Your task to perform on an android device: Open Youtube and go to "Your channel" Image 0: 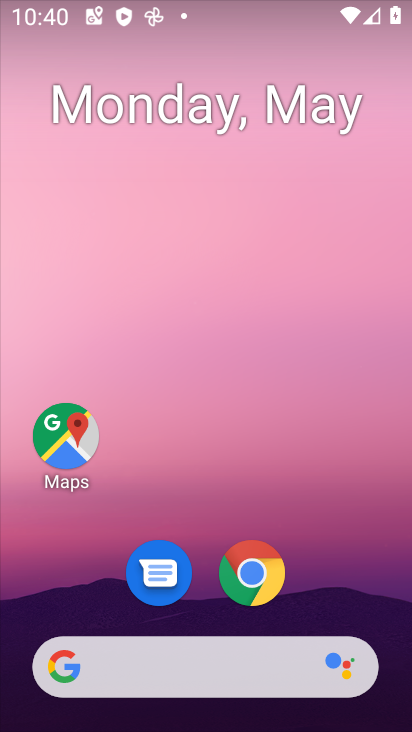
Step 0: drag from (344, 589) to (185, 70)
Your task to perform on an android device: Open Youtube and go to "Your channel" Image 1: 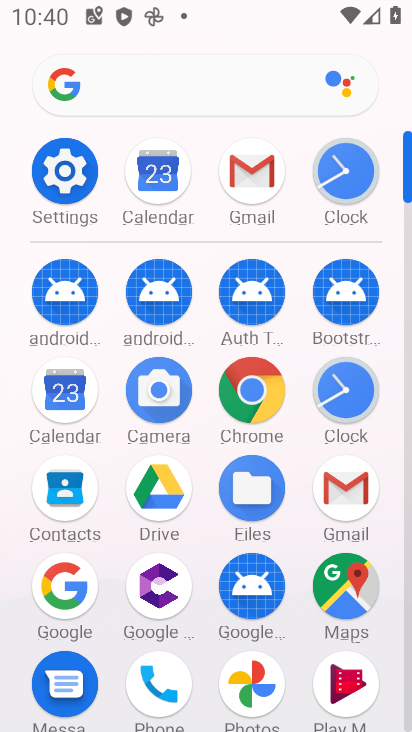
Step 1: click (408, 716)
Your task to perform on an android device: Open Youtube and go to "Your channel" Image 2: 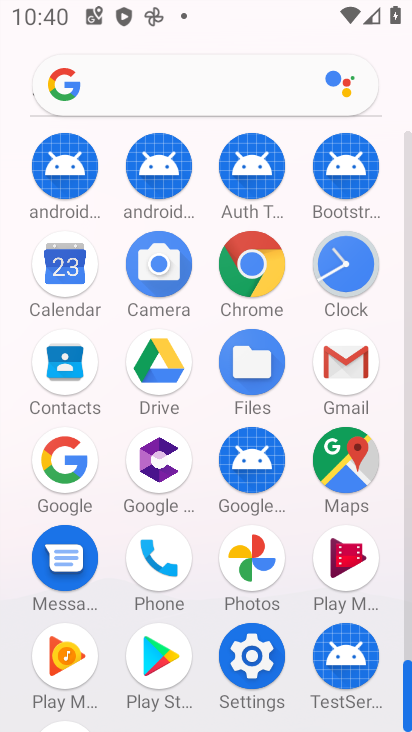
Step 2: drag from (406, 669) to (150, 700)
Your task to perform on an android device: Open Youtube and go to "Your channel" Image 3: 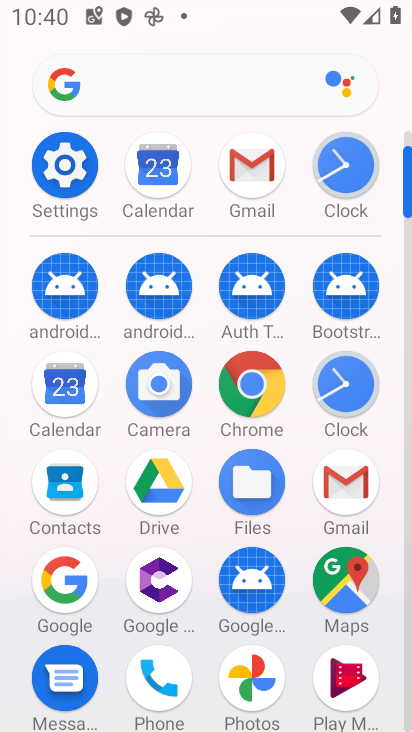
Step 3: click (64, 704)
Your task to perform on an android device: Open Youtube and go to "Your channel" Image 4: 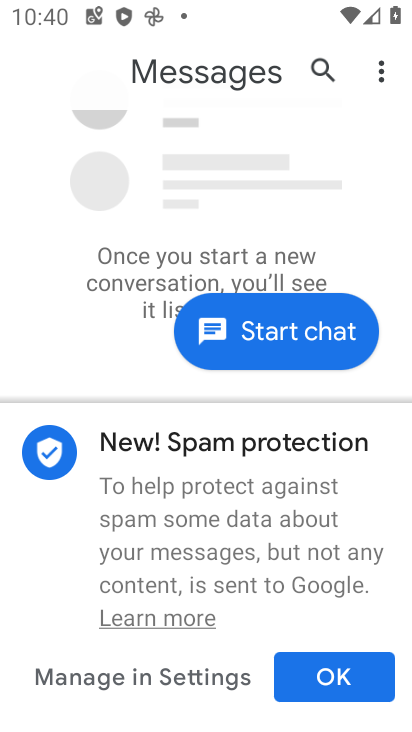
Step 4: press home button
Your task to perform on an android device: Open Youtube and go to "Your channel" Image 5: 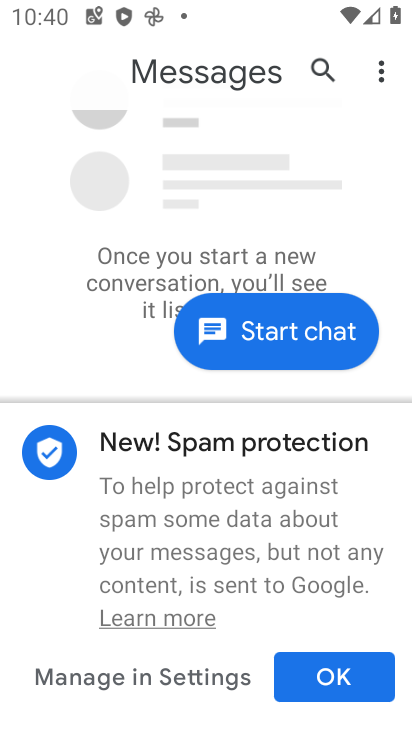
Step 5: press home button
Your task to perform on an android device: Open Youtube and go to "Your channel" Image 6: 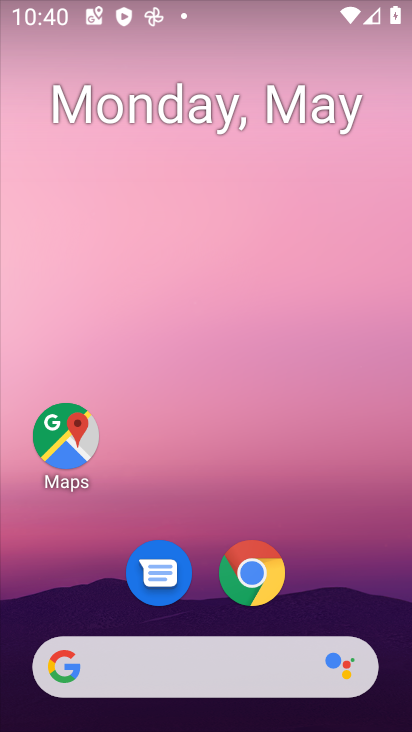
Step 6: drag from (356, 615) to (297, 56)
Your task to perform on an android device: Open Youtube and go to "Your channel" Image 7: 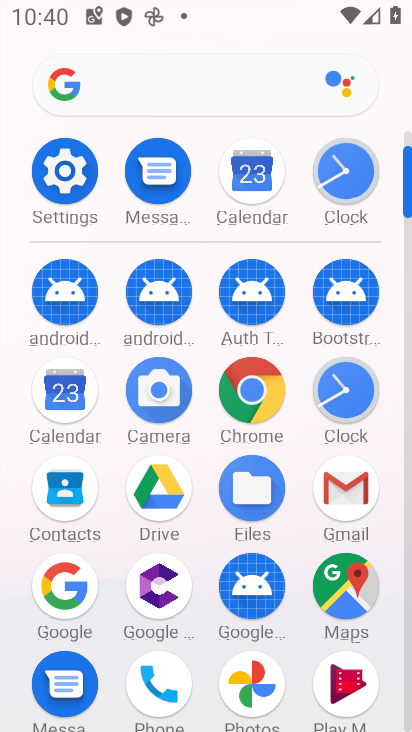
Step 7: click (411, 718)
Your task to perform on an android device: Open Youtube and go to "Your channel" Image 8: 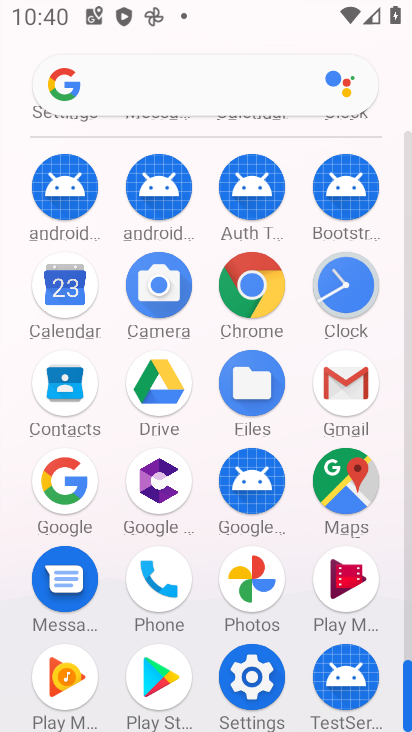
Step 8: drag from (407, 700) to (398, 582)
Your task to perform on an android device: Open Youtube and go to "Your channel" Image 9: 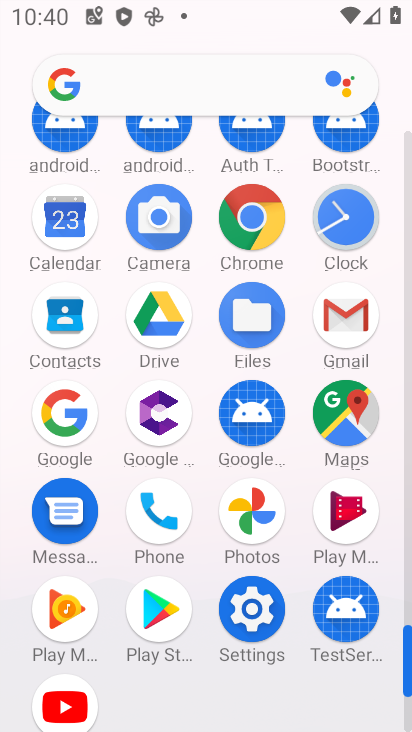
Step 9: click (70, 708)
Your task to perform on an android device: Open Youtube and go to "Your channel" Image 10: 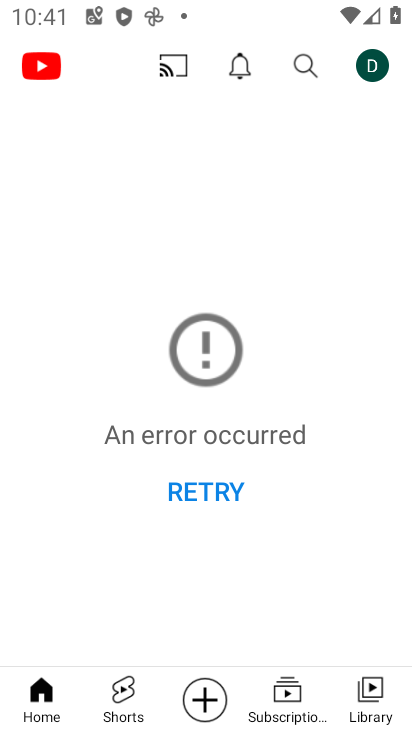
Step 10: click (367, 693)
Your task to perform on an android device: Open Youtube and go to "Your channel" Image 11: 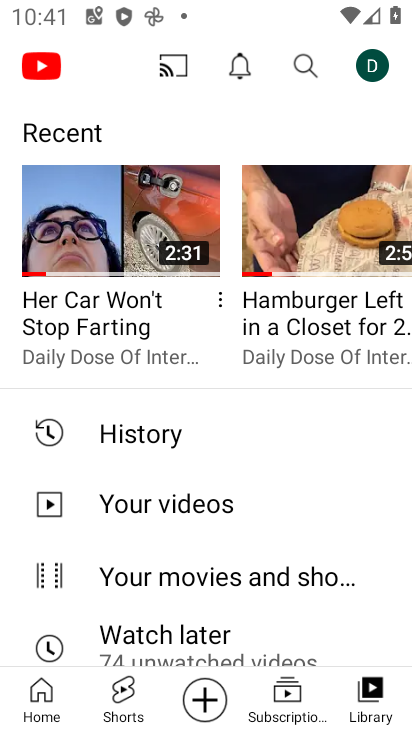
Step 11: click (364, 68)
Your task to perform on an android device: Open Youtube and go to "Your channel" Image 12: 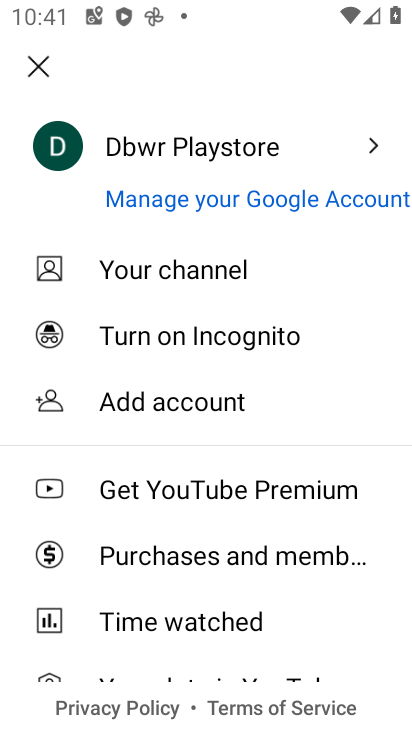
Step 12: click (174, 301)
Your task to perform on an android device: Open Youtube and go to "Your channel" Image 13: 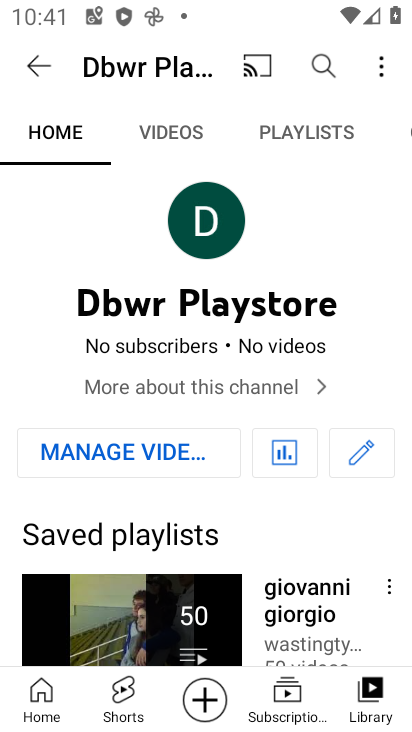
Step 13: task complete